Your task to perform on an android device: open chrome privacy settings Image 0: 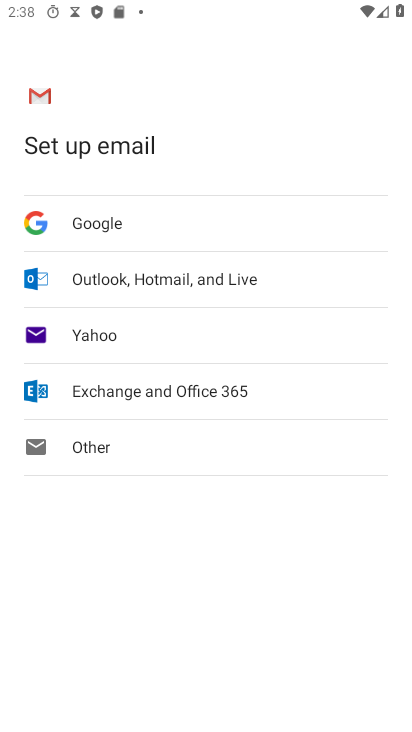
Step 0: press home button
Your task to perform on an android device: open chrome privacy settings Image 1: 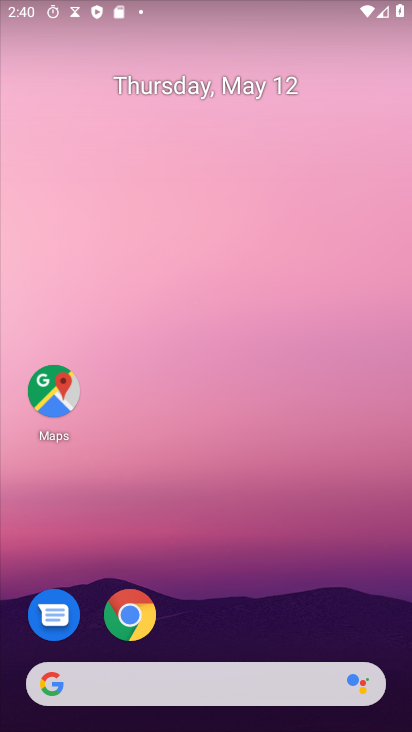
Step 1: click (122, 605)
Your task to perform on an android device: open chrome privacy settings Image 2: 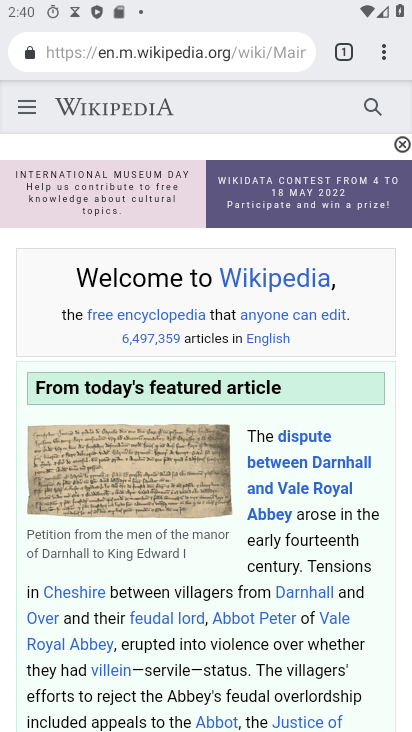
Step 2: click (385, 55)
Your task to perform on an android device: open chrome privacy settings Image 3: 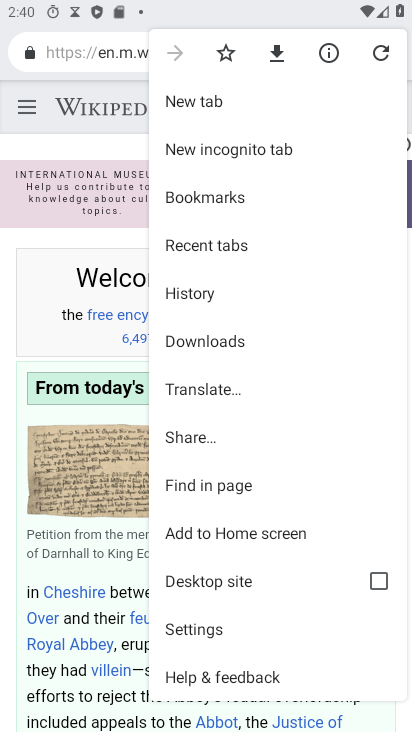
Step 3: click (221, 626)
Your task to perform on an android device: open chrome privacy settings Image 4: 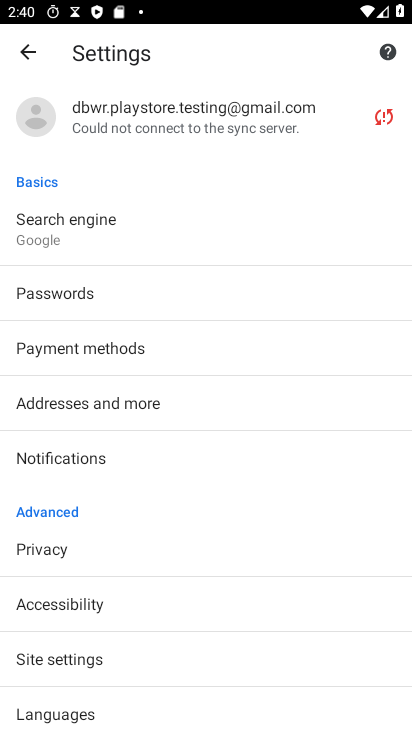
Step 4: click (68, 553)
Your task to perform on an android device: open chrome privacy settings Image 5: 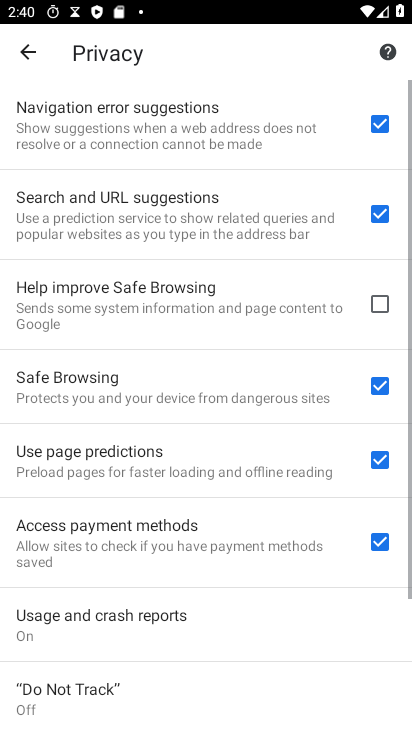
Step 5: task complete